Your task to perform on an android device: Go to Wikipedia Image 0: 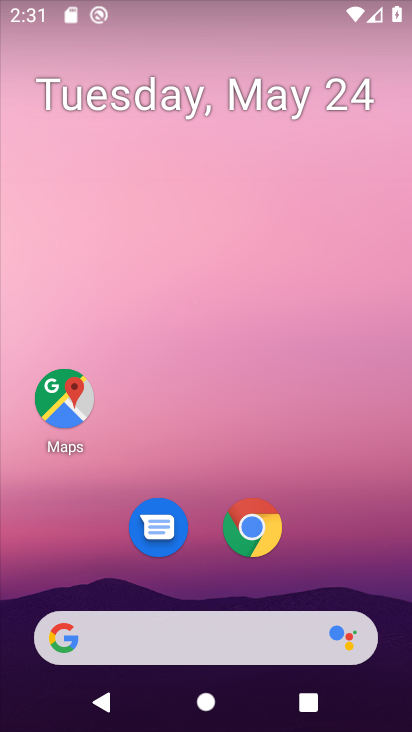
Step 0: click (253, 529)
Your task to perform on an android device: Go to Wikipedia Image 1: 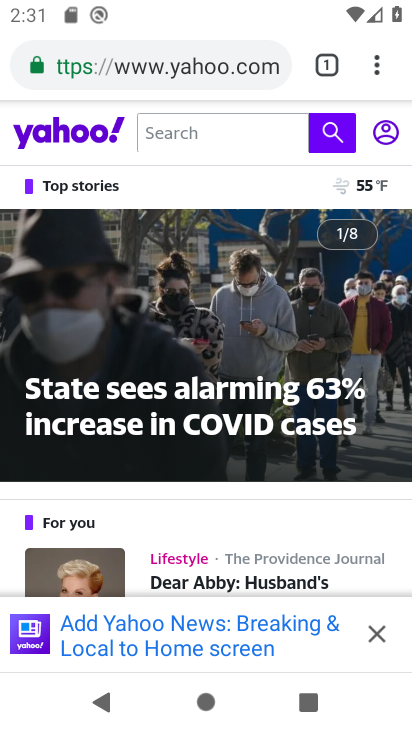
Step 1: click (124, 62)
Your task to perform on an android device: Go to Wikipedia Image 2: 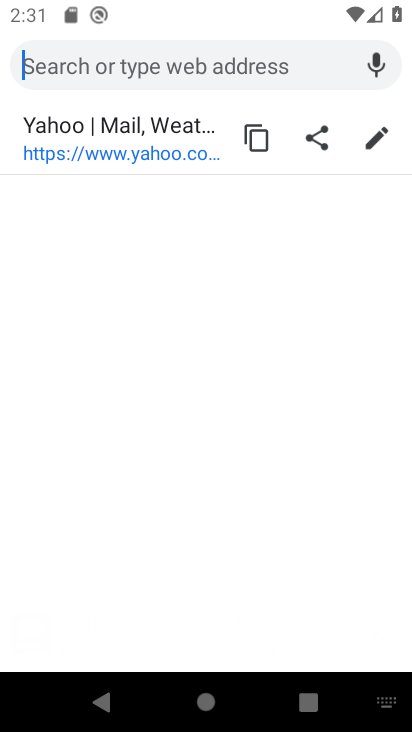
Step 2: type "wikipedia"
Your task to perform on an android device: Go to Wikipedia Image 3: 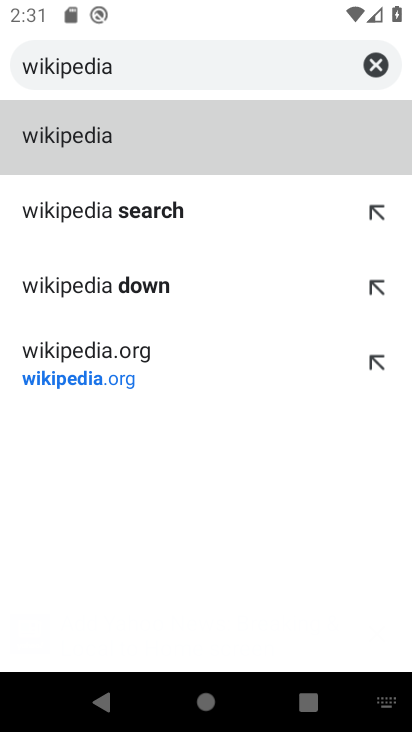
Step 3: click (52, 133)
Your task to perform on an android device: Go to Wikipedia Image 4: 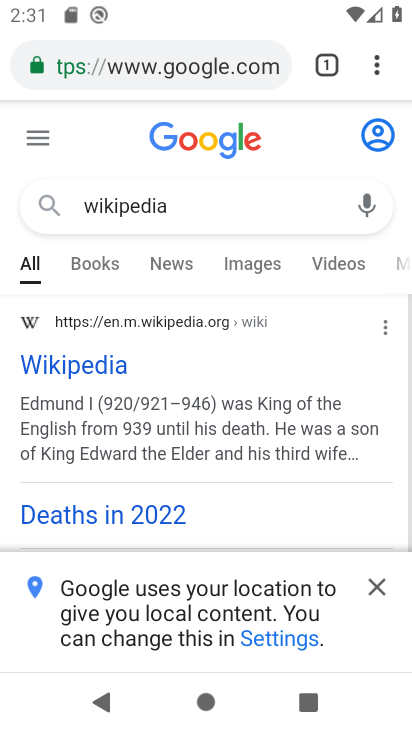
Step 4: click (28, 357)
Your task to perform on an android device: Go to Wikipedia Image 5: 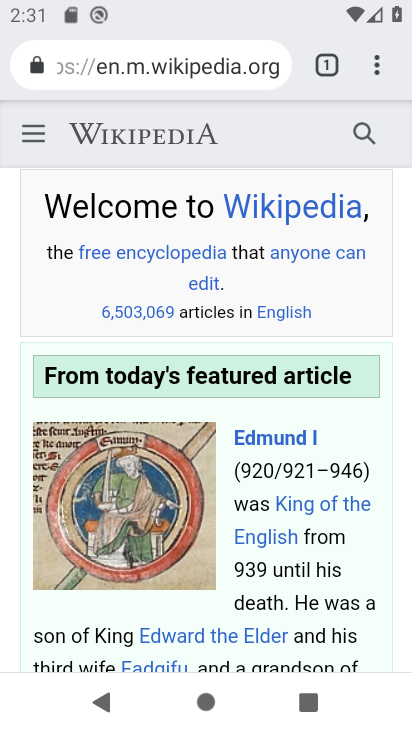
Step 5: task complete